Your task to perform on an android device: Open Chrome and go to settings Image 0: 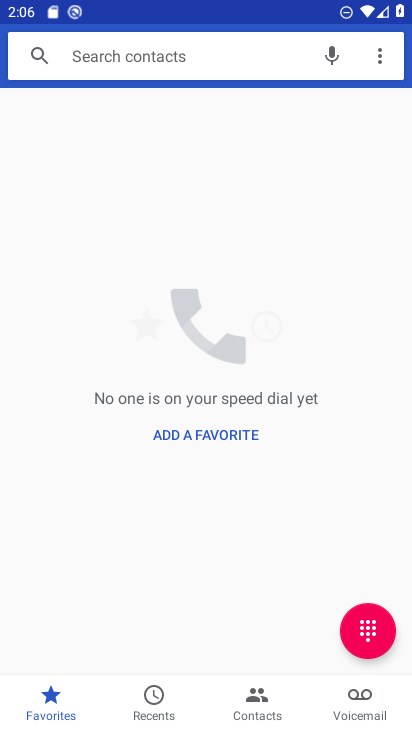
Step 0: press home button
Your task to perform on an android device: Open Chrome and go to settings Image 1: 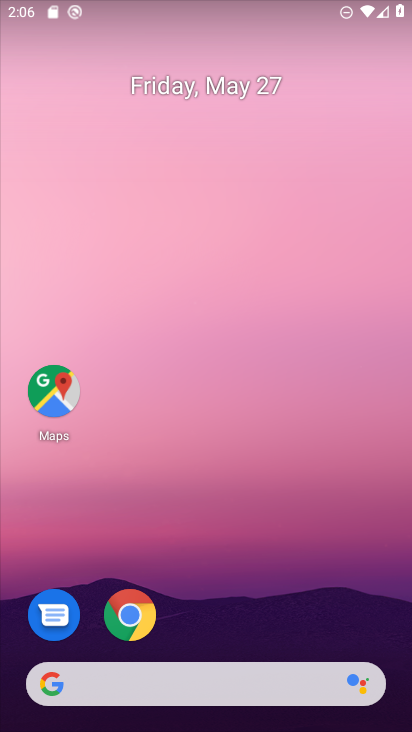
Step 1: drag from (219, 591) to (238, 174)
Your task to perform on an android device: Open Chrome and go to settings Image 2: 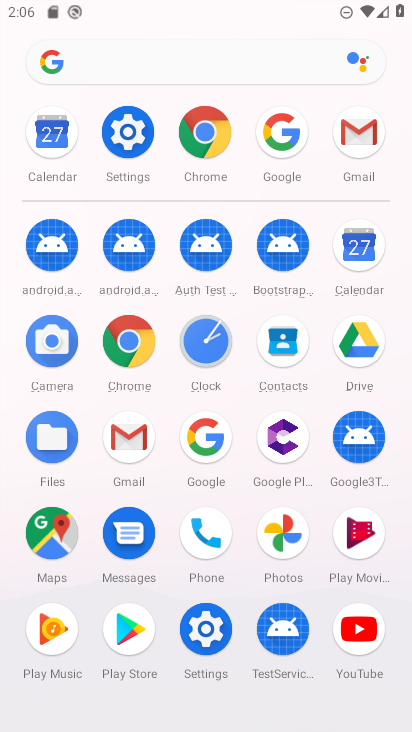
Step 2: click (90, 325)
Your task to perform on an android device: Open Chrome and go to settings Image 3: 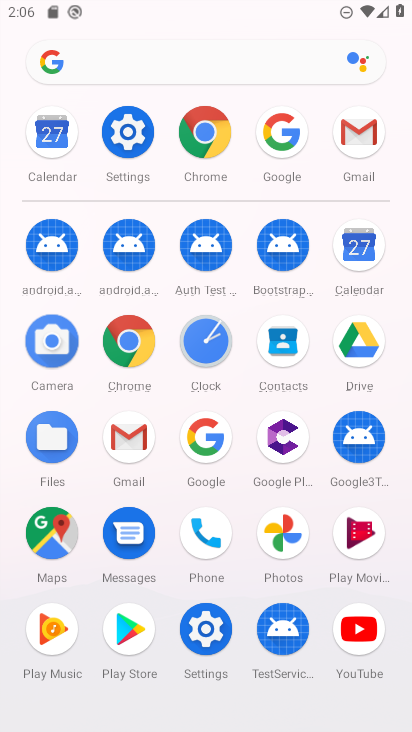
Step 3: click (144, 356)
Your task to perform on an android device: Open Chrome and go to settings Image 4: 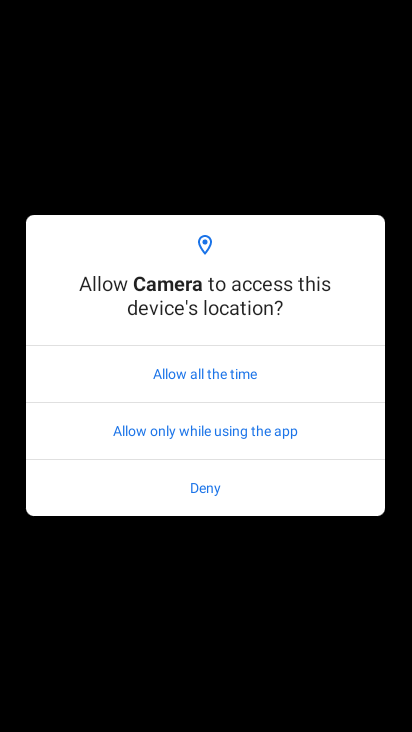
Step 4: click (257, 388)
Your task to perform on an android device: Open Chrome and go to settings Image 5: 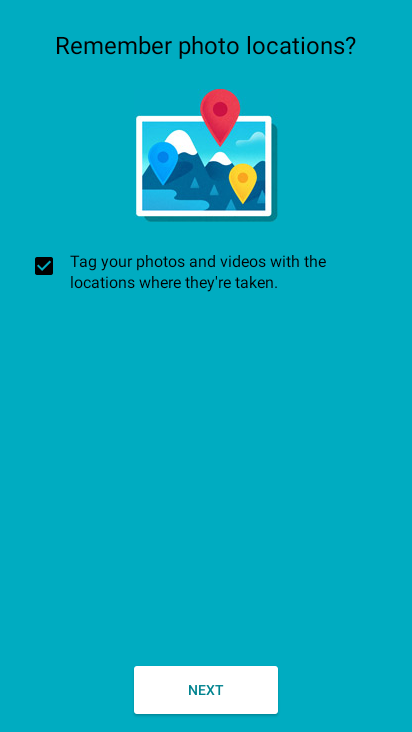
Step 5: click (243, 696)
Your task to perform on an android device: Open Chrome and go to settings Image 6: 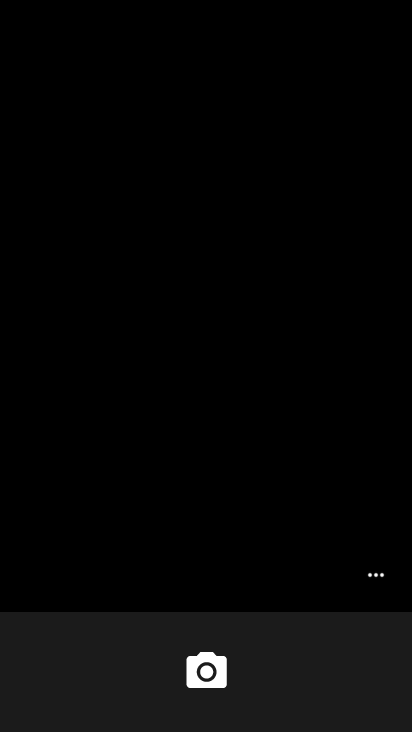
Step 6: click (207, 677)
Your task to perform on an android device: Open Chrome and go to settings Image 7: 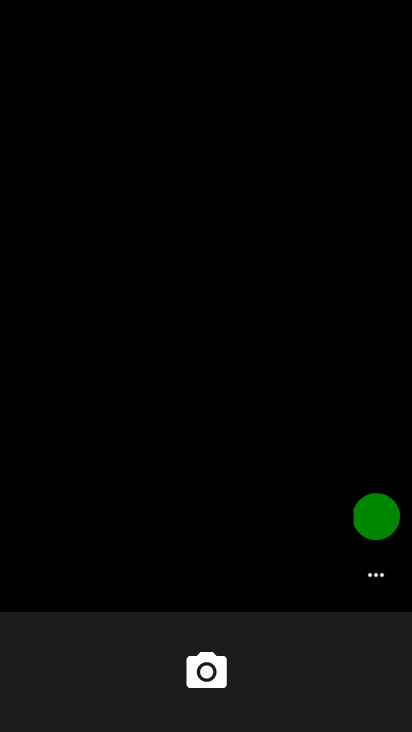
Step 7: click (207, 676)
Your task to perform on an android device: Open Chrome and go to settings Image 8: 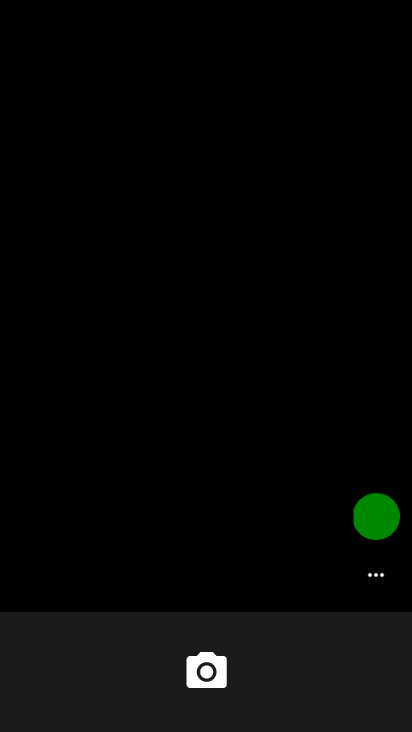
Step 8: task complete